Your task to perform on an android device: change text size in settings app Image 0: 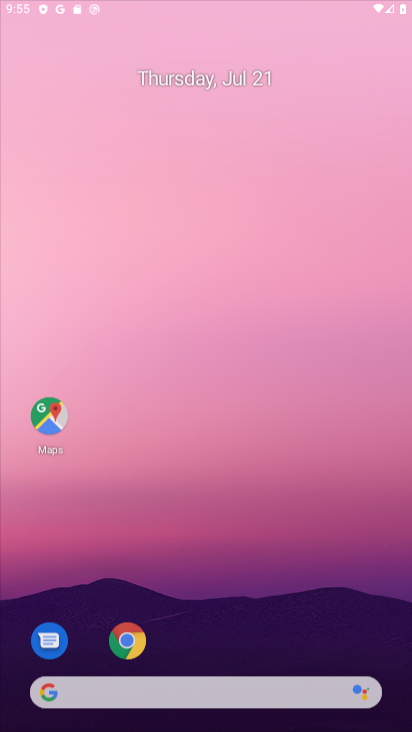
Step 0: press home button
Your task to perform on an android device: change text size in settings app Image 1: 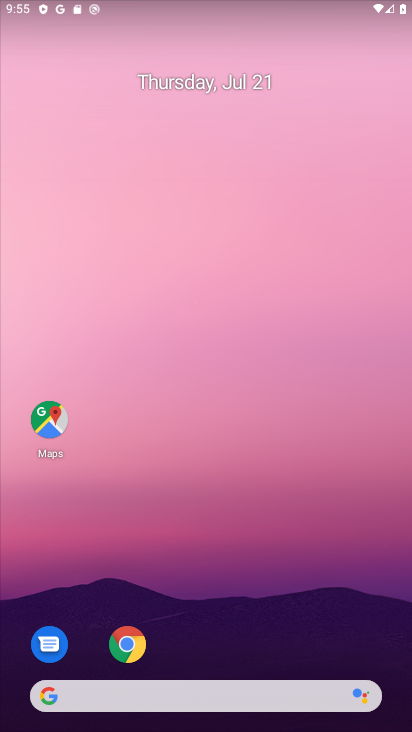
Step 1: drag from (219, 667) to (229, 144)
Your task to perform on an android device: change text size in settings app Image 2: 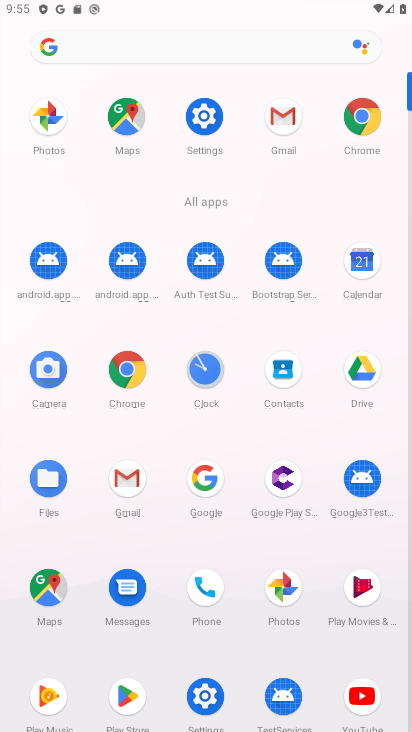
Step 2: click (203, 691)
Your task to perform on an android device: change text size in settings app Image 3: 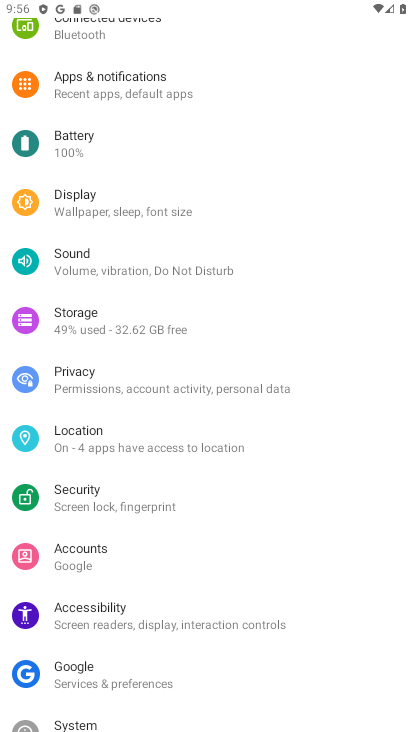
Step 3: click (81, 195)
Your task to perform on an android device: change text size in settings app Image 4: 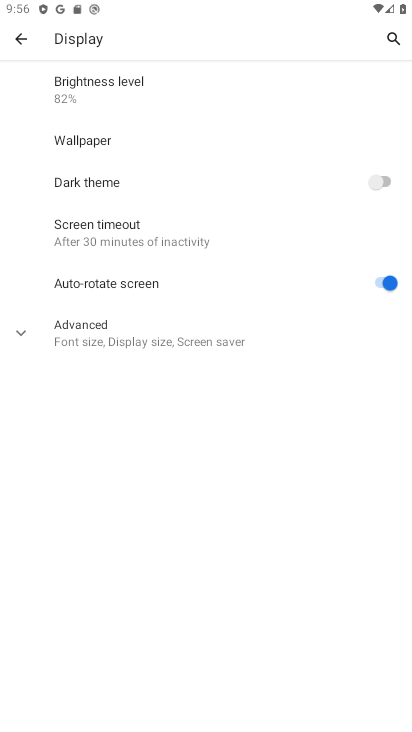
Step 4: click (28, 332)
Your task to perform on an android device: change text size in settings app Image 5: 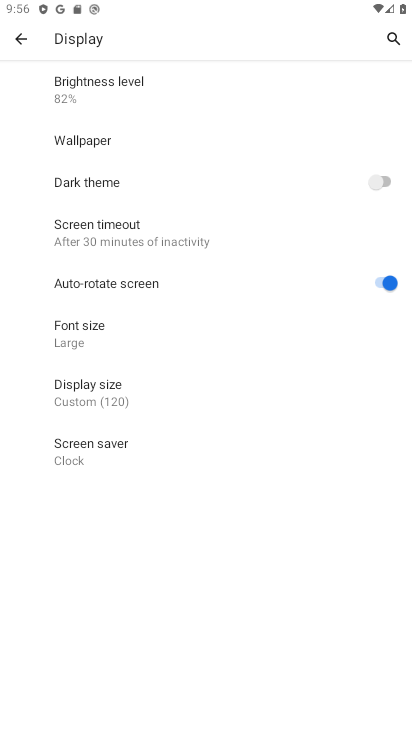
Step 5: click (100, 322)
Your task to perform on an android device: change text size in settings app Image 6: 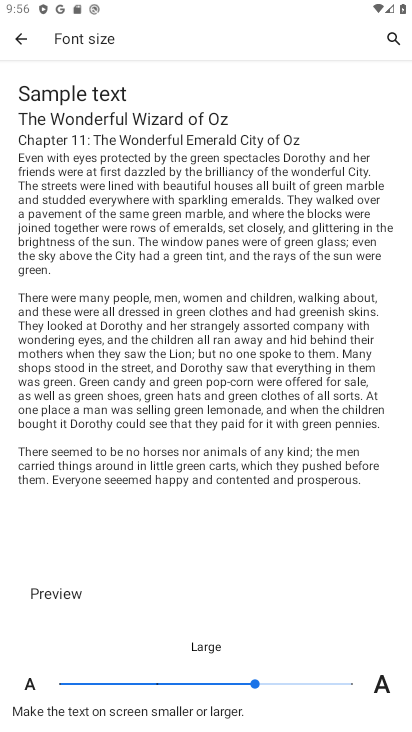
Step 6: click (346, 680)
Your task to perform on an android device: change text size in settings app Image 7: 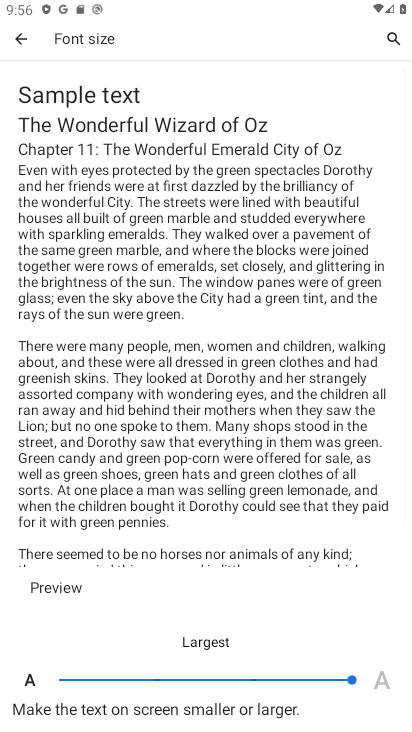
Step 7: task complete